Your task to perform on an android device: Open Wikipedia Image 0: 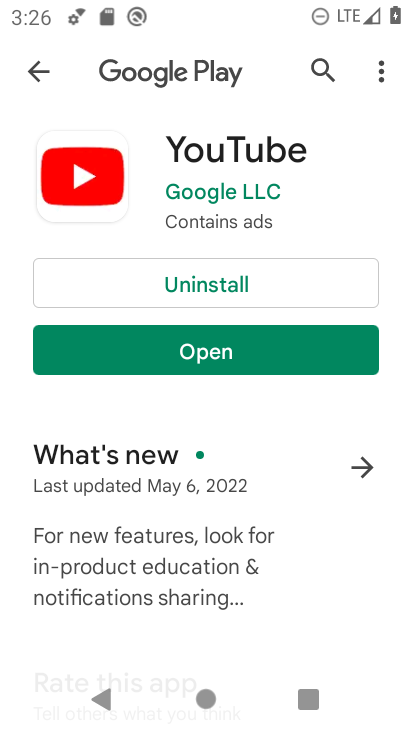
Step 0: press home button
Your task to perform on an android device: Open Wikipedia Image 1: 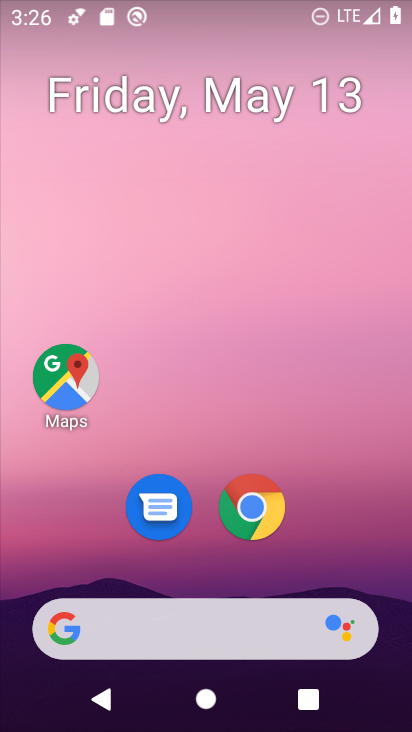
Step 1: click (270, 517)
Your task to perform on an android device: Open Wikipedia Image 2: 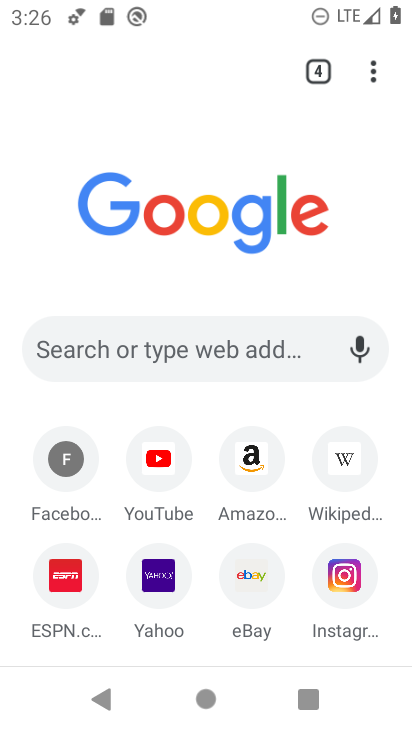
Step 2: click (349, 472)
Your task to perform on an android device: Open Wikipedia Image 3: 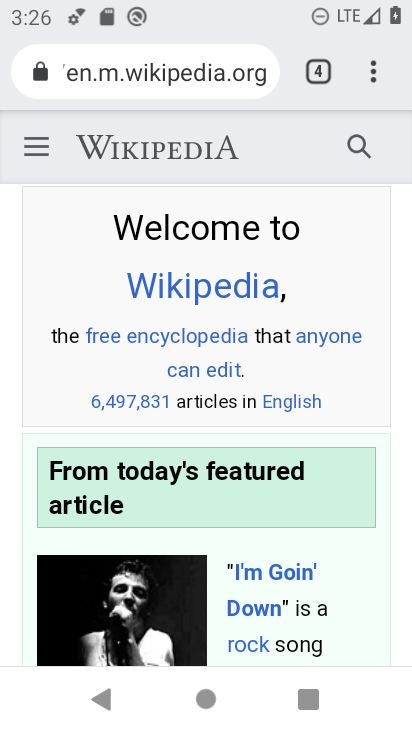
Step 3: task complete